Your task to perform on an android device: Open the calendar and show me this week's events? Image 0: 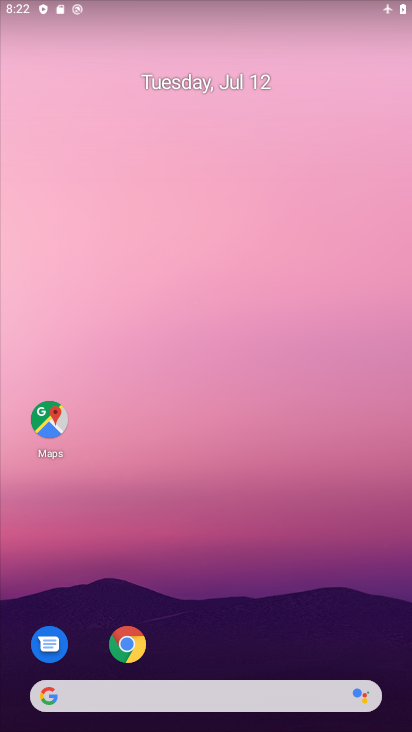
Step 0: drag from (212, 635) to (220, 171)
Your task to perform on an android device: Open the calendar and show me this week's events? Image 1: 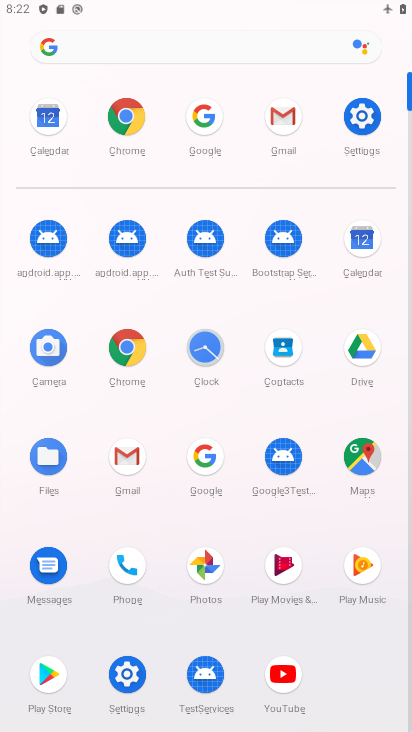
Step 1: click (359, 252)
Your task to perform on an android device: Open the calendar and show me this week's events? Image 2: 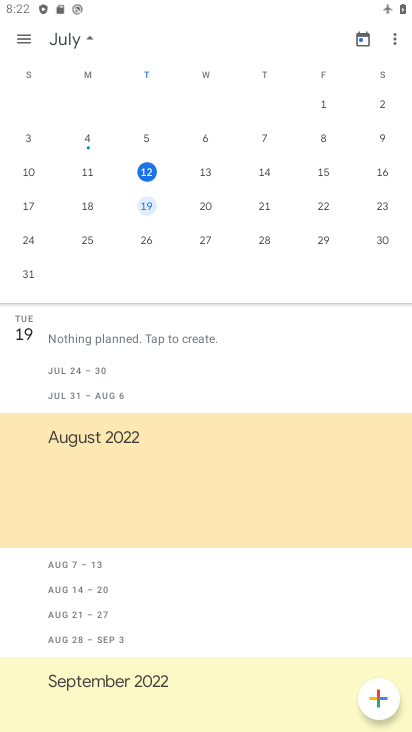
Step 2: click (192, 167)
Your task to perform on an android device: Open the calendar and show me this week's events? Image 3: 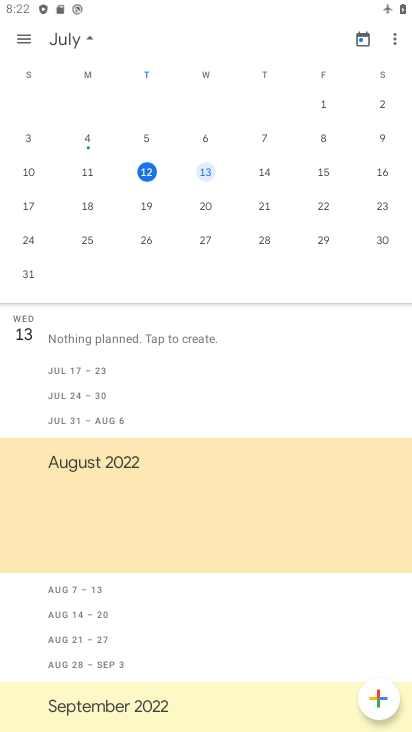
Step 3: task complete